Your task to perform on an android device: Open Yahoo.com Image 0: 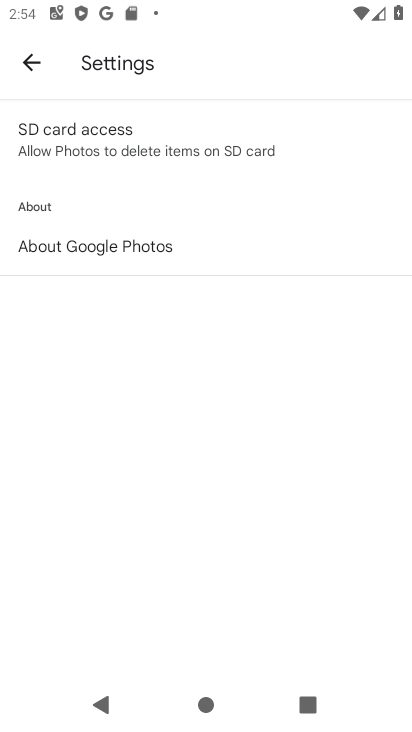
Step 0: press home button
Your task to perform on an android device: Open Yahoo.com Image 1: 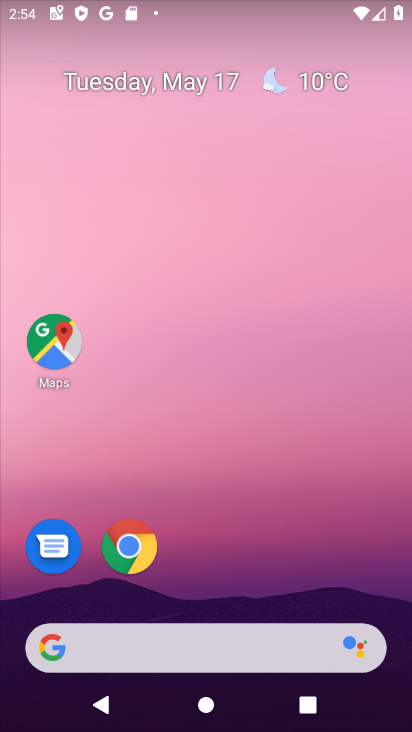
Step 1: click (128, 547)
Your task to perform on an android device: Open Yahoo.com Image 2: 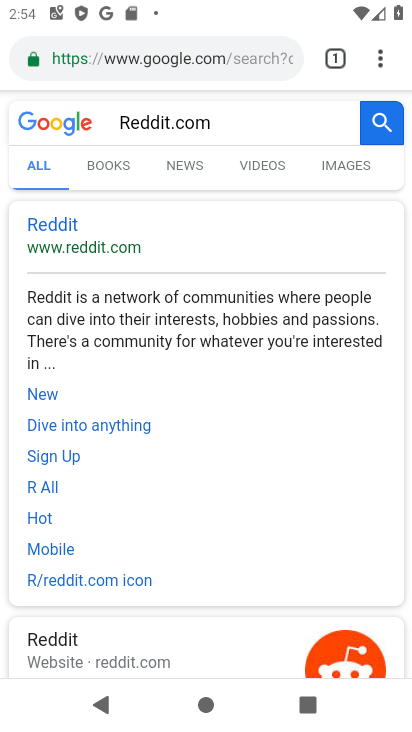
Step 2: click (205, 51)
Your task to perform on an android device: Open Yahoo.com Image 3: 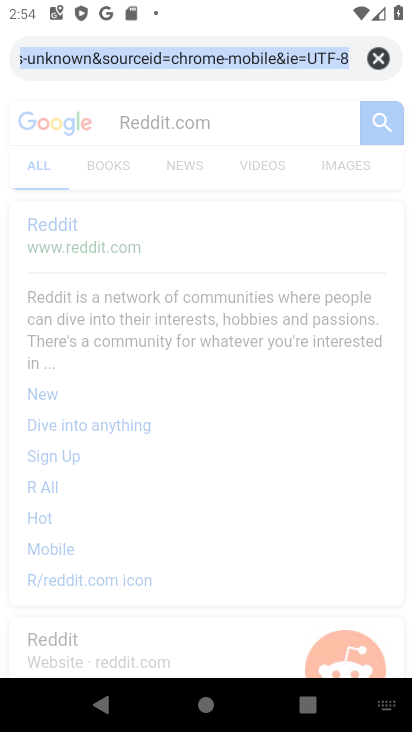
Step 3: type "yahoo.com"
Your task to perform on an android device: Open Yahoo.com Image 4: 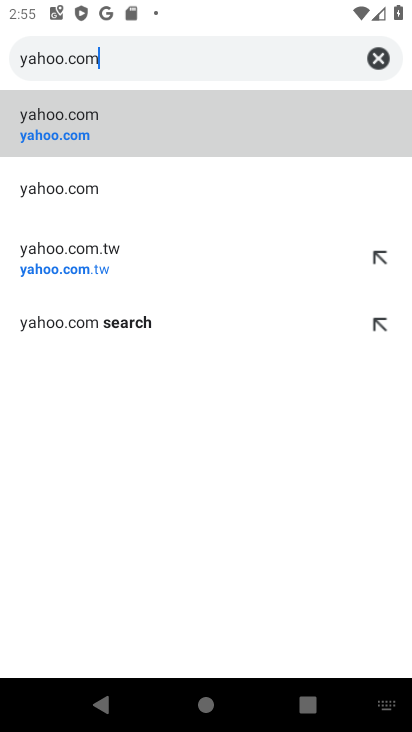
Step 4: click (186, 122)
Your task to perform on an android device: Open Yahoo.com Image 5: 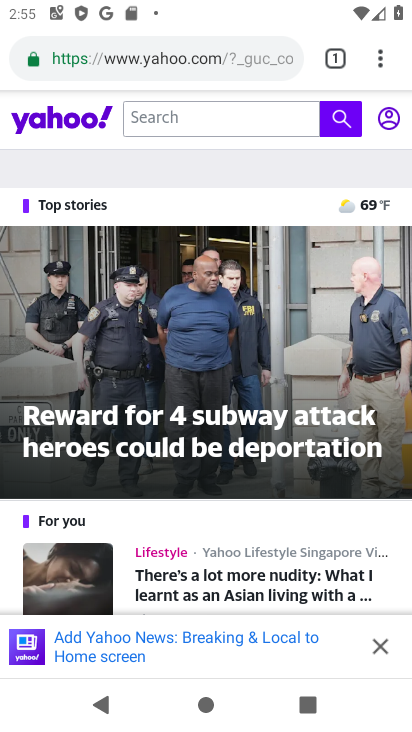
Step 5: task complete